Your task to perform on an android device: Go to Google maps Image 0: 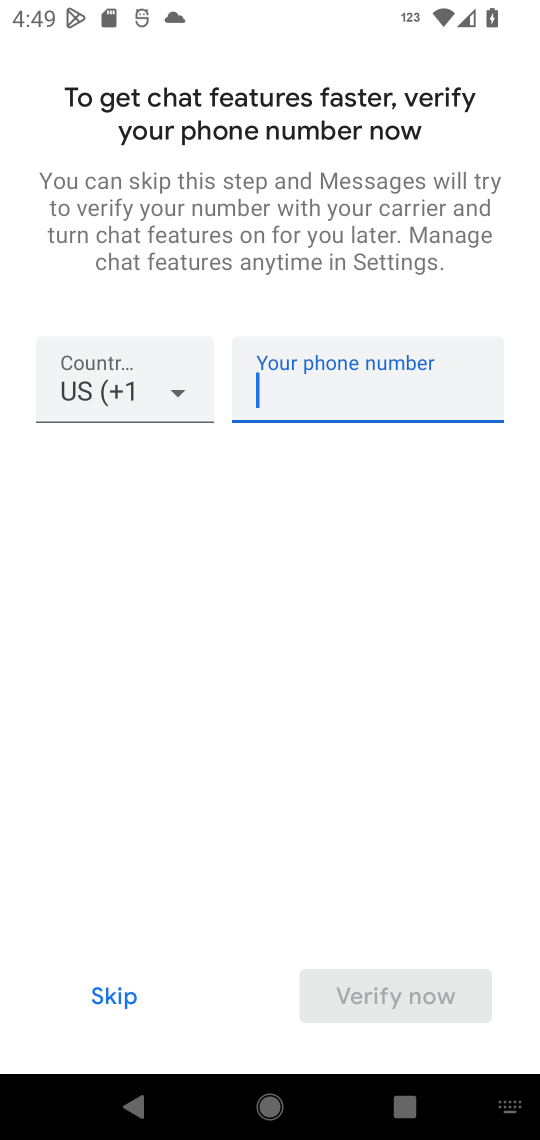
Step 0: press home button
Your task to perform on an android device: Go to Google maps Image 1: 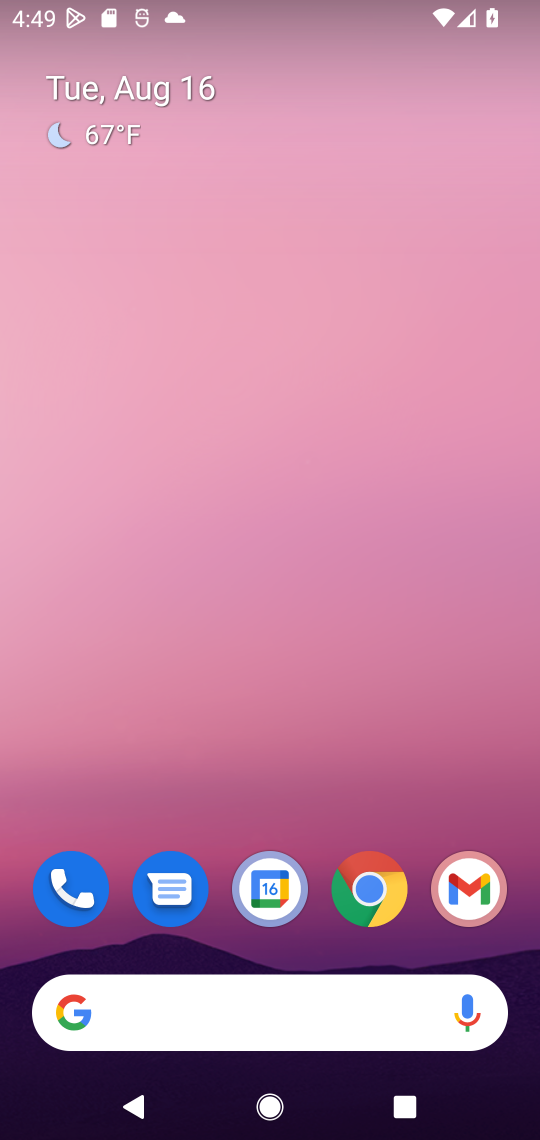
Step 1: drag from (351, 728) to (360, 193)
Your task to perform on an android device: Go to Google maps Image 2: 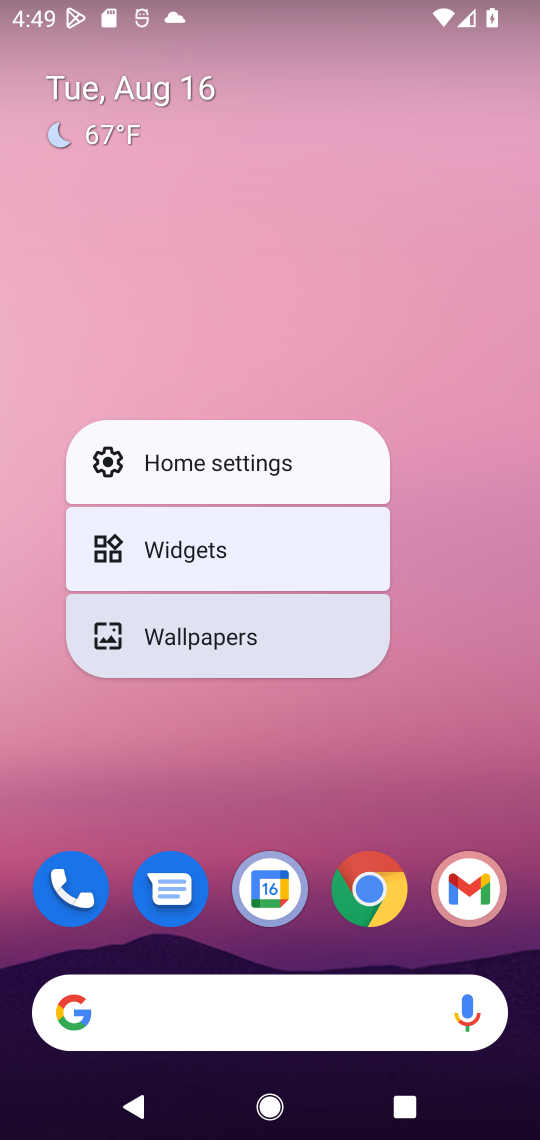
Step 2: click (403, 634)
Your task to perform on an android device: Go to Google maps Image 3: 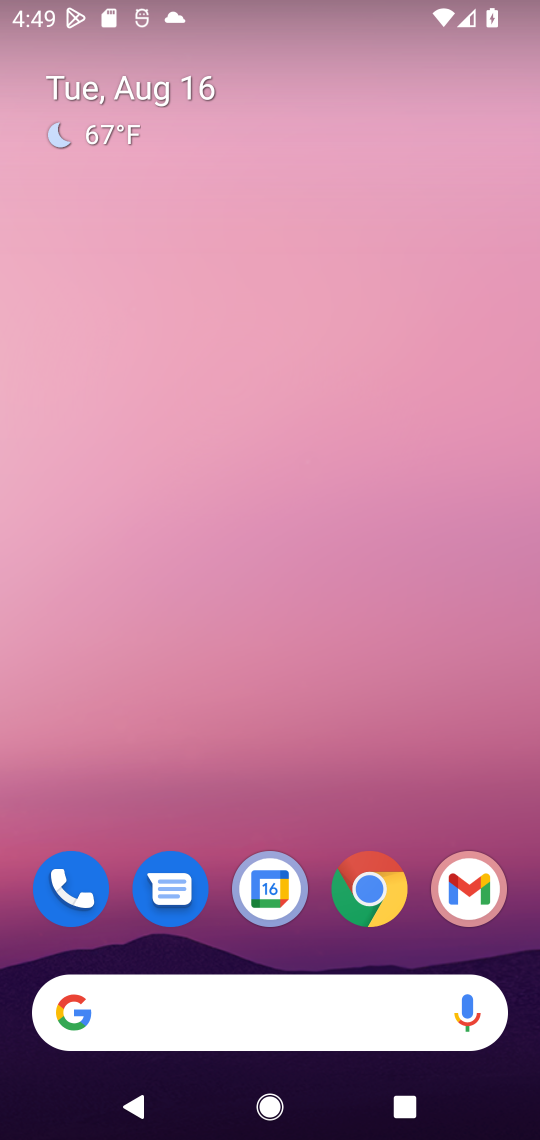
Step 3: click (431, 756)
Your task to perform on an android device: Go to Google maps Image 4: 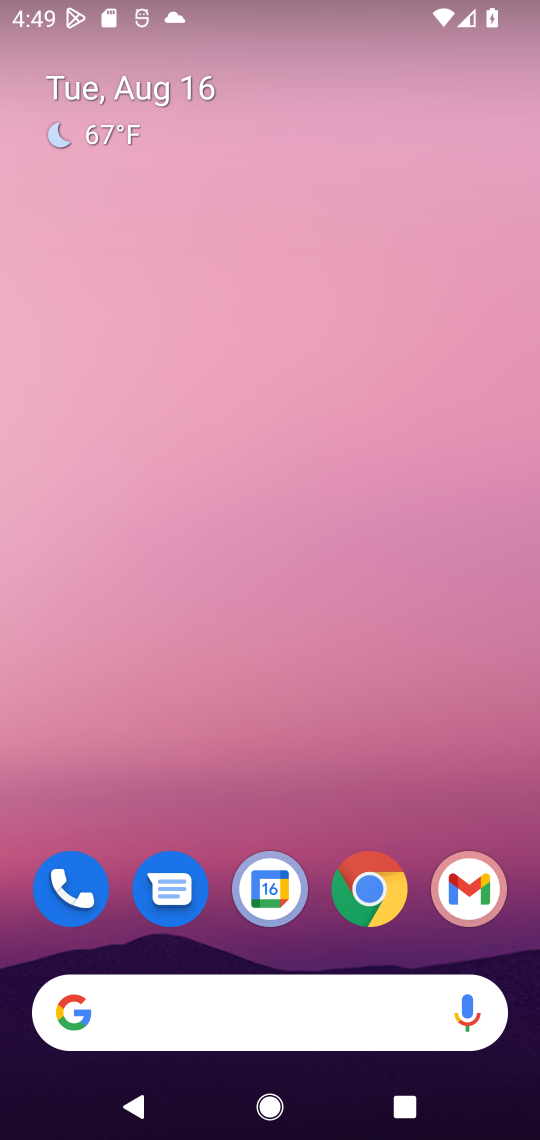
Step 4: click (435, 22)
Your task to perform on an android device: Go to Google maps Image 5: 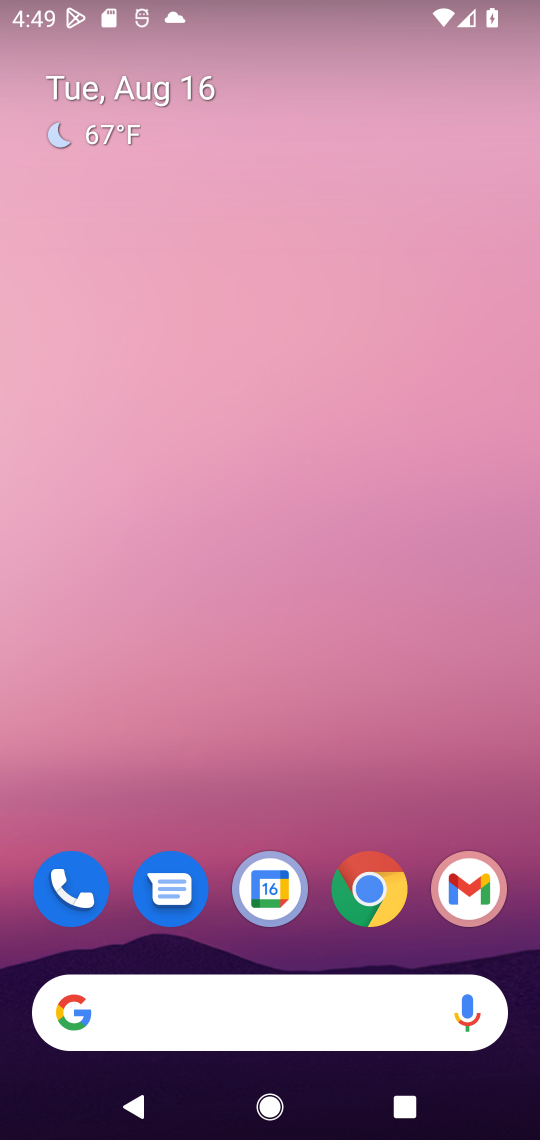
Step 5: drag from (276, 666) to (351, 130)
Your task to perform on an android device: Go to Google maps Image 6: 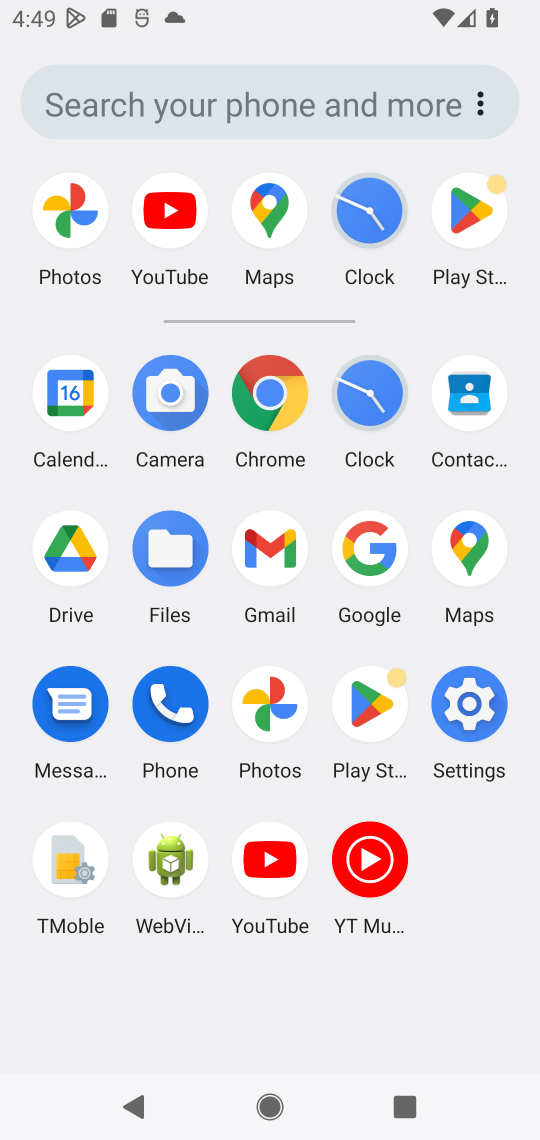
Step 6: click (462, 551)
Your task to perform on an android device: Go to Google maps Image 7: 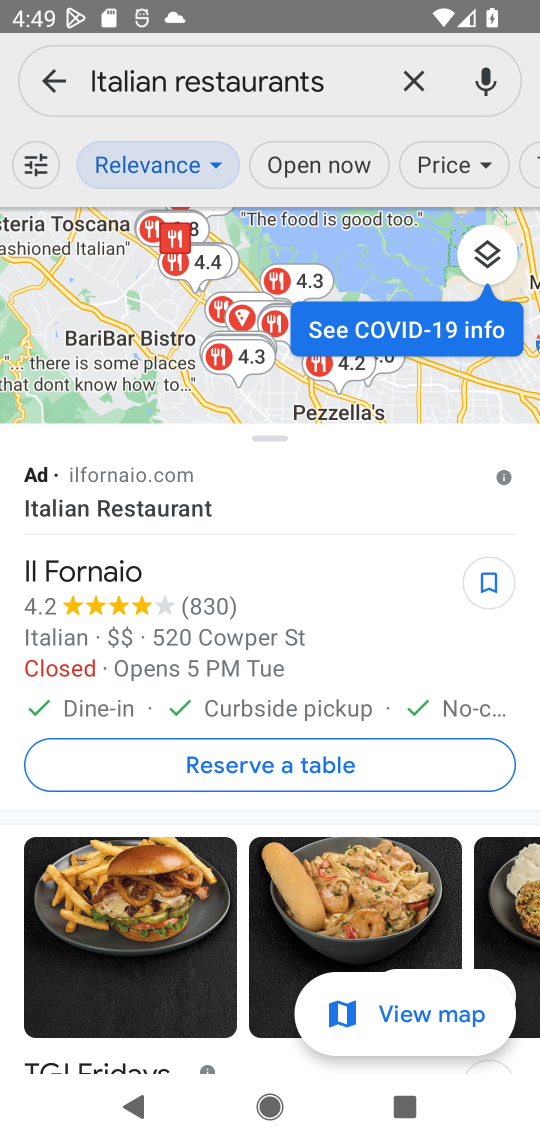
Step 7: task complete